Your task to perform on an android device: Find coffee shops on Maps Image 0: 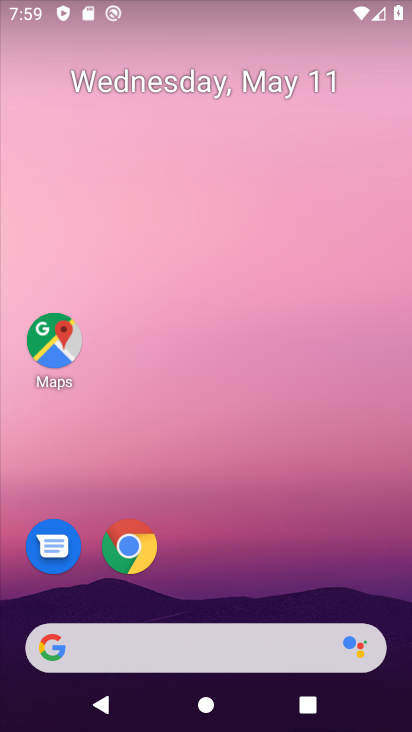
Step 0: click (128, 535)
Your task to perform on an android device: Find coffee shops on Maps Image 1: 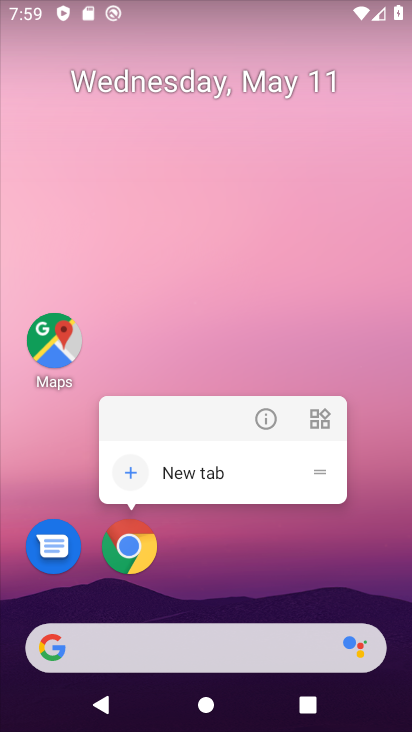
Step 1: click (269, 422)
Your task to perform on an android device: Find coffee shops on Maps Image 2: 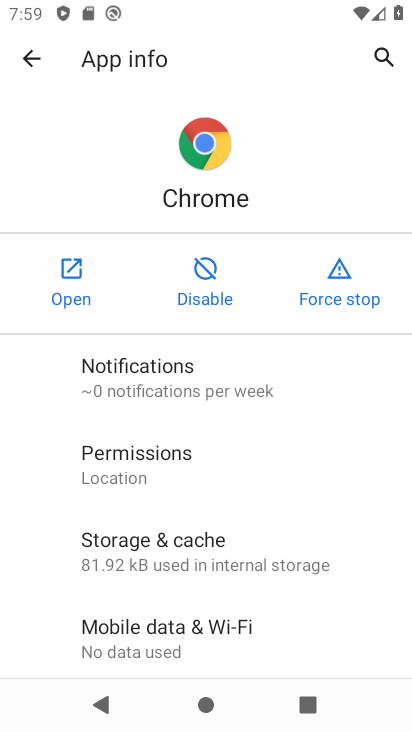
Step 2: press home button
Your task to perform on an android device: Find coffee shops on Maps Image 3: 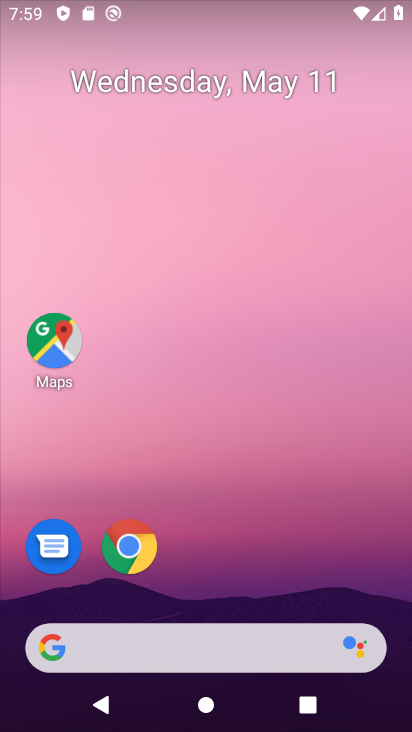
Step 3: click (37, 364)
Your task to perform on an android device: Find coffee shops on Maps Image 4: 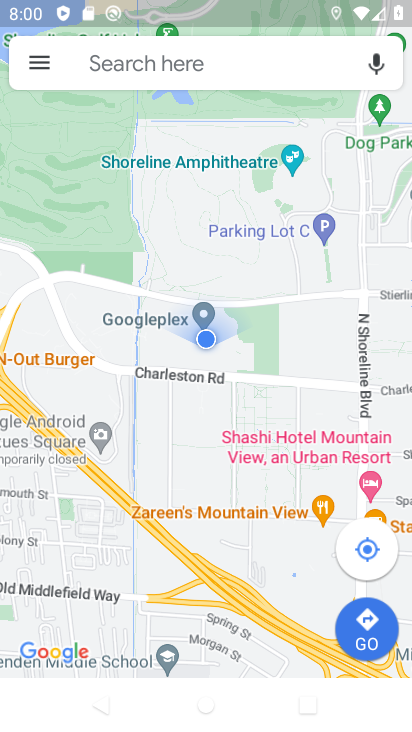
Step 4: click (222, 70)
Your task to perform on an android device: Find coffee shops on Maps Image 5: 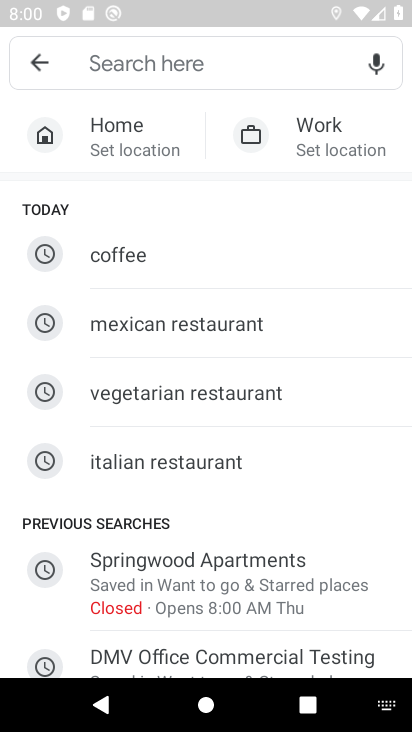
Step 5: type "coffee shops"
Your task to perform on an android device: Find coffee shops on Maps Image 6: 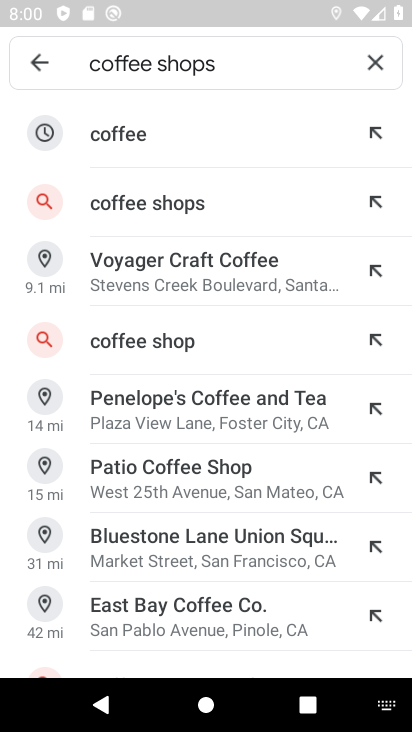
Step 6: click (272, 192)
Your task to perform on an android device: Find coffee shops on Maps Image 7: 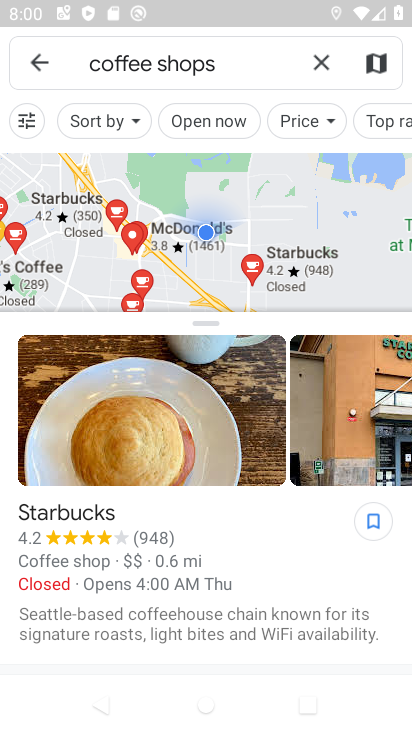
Step 7: task complete